Your task to perform on an android device: turn smart compose on in the gmail app Image 0: 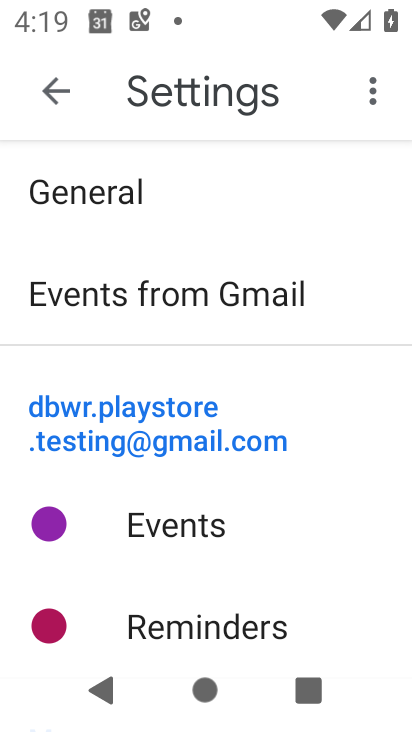
Step 0: press home button
Your task to perform on an android device: turn smart compose on in the gmail app Image 1: 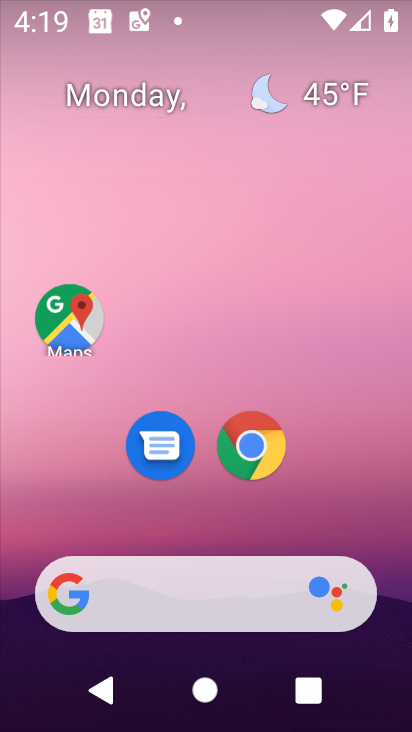
Step 1: drag from (247, 507) to (264, 104)
Your task to perform on an android device: turn smart compose on in the gmail app Image 2: 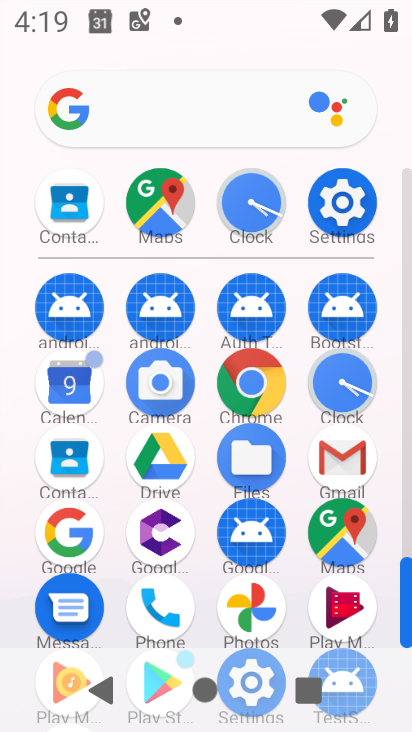
Step 2: click (337, 465)
Your task to perform on an android device: turn smart compose on in the gmail app Image 3: 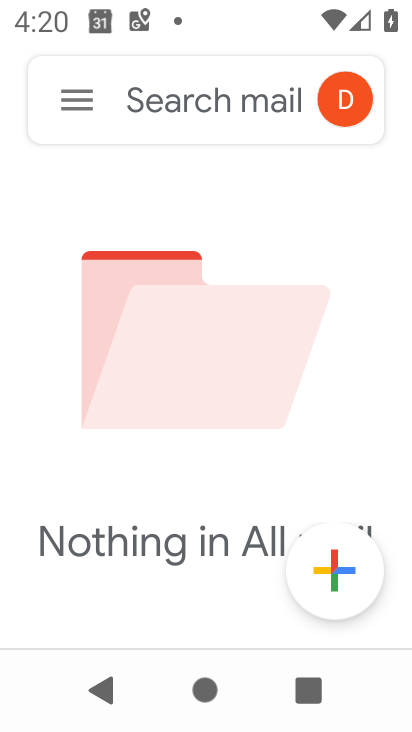
Step 3: click (60, 106)
Your task to perform on an android device: turn smart compose on in the gmail app Image 4: 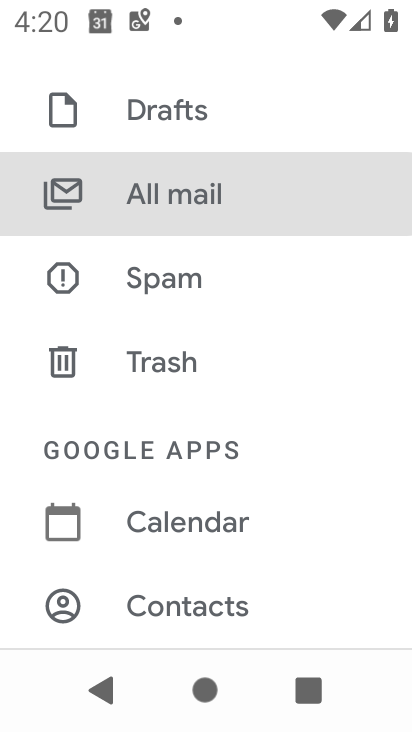
Step 4: drag from (179, 554) to (214, 118)
Your task to perform on an android device: turn smart compose on in the gmail app Image 5: 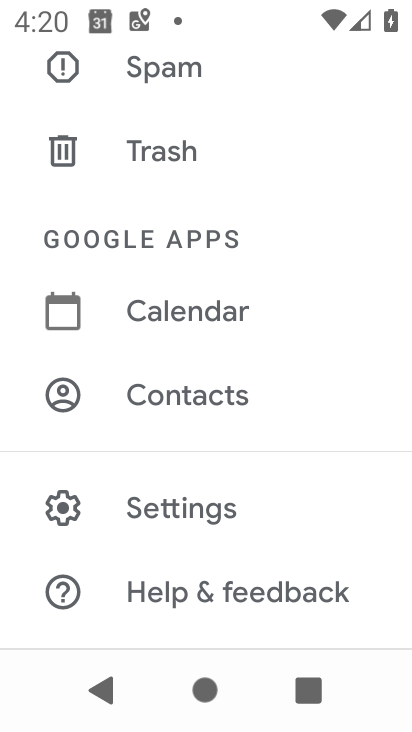
Step 5: click (158, 494)
Your task to perform on an android device: turn smart compose on in the gmail app Image 6: 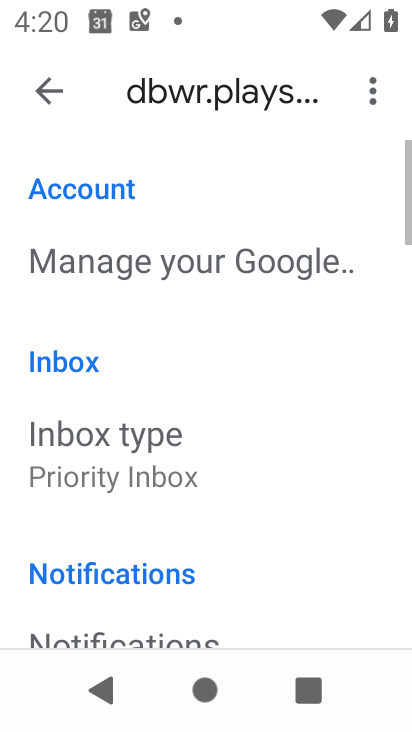
Step 6: task complete